Your task to perform on an android device: turn on notifications settings in the gmail app Image 0: 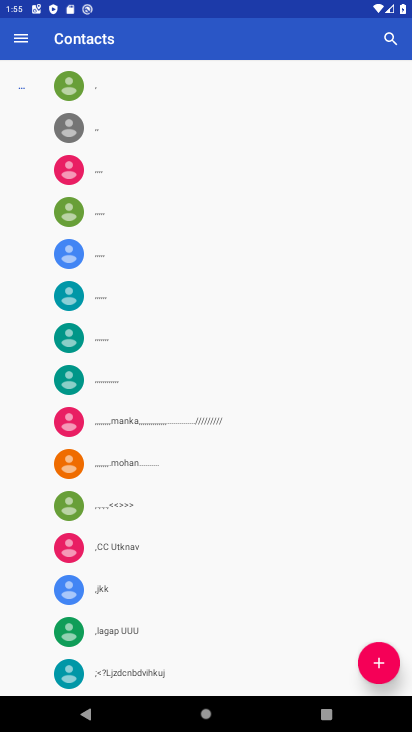
Step 0: press home button
Your task to perform on an android device: turn on notifications settings in the gmail app Image 1: 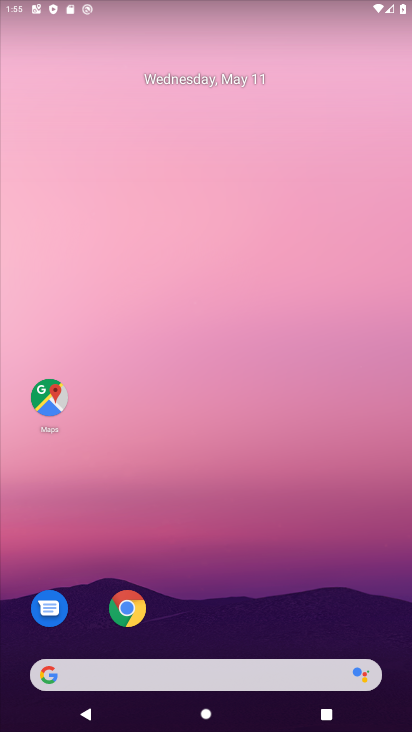
Step 1: drag from (293, 526) to (266, 195)
Your task to perform on an android device: turn on notifications settings in the gmail app Image 2: 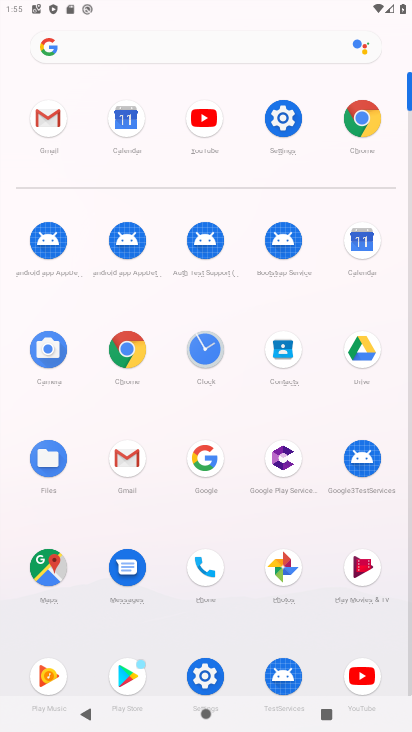
Step 2: click (122, 454)
Your task to perform on an android device: turn on notifications settings in the gmail app Image 3: 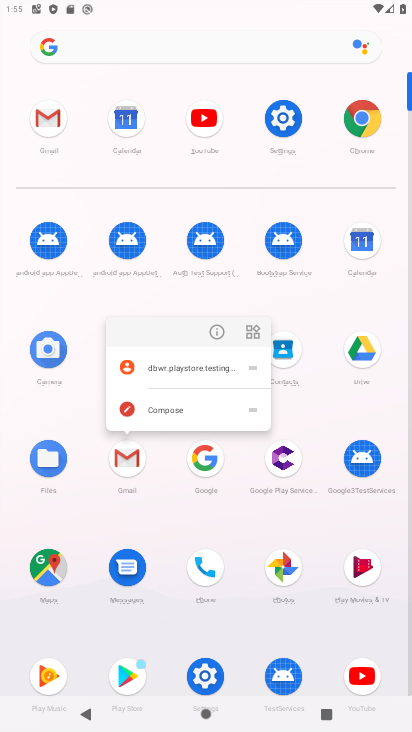
Step 3: click (127, 449)
Your task to perform on an android device: turn on notifications settings in the gmail app Image 4: 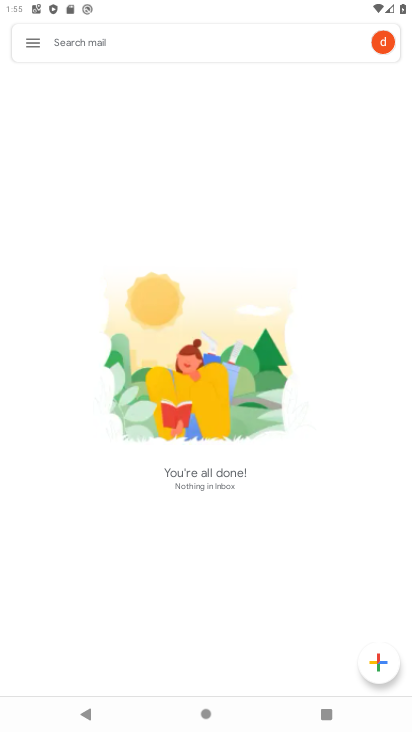
Step 4: click (37, 40)
Your task to perform on an android device: turn on notifications settings in the gmail app Image 5: 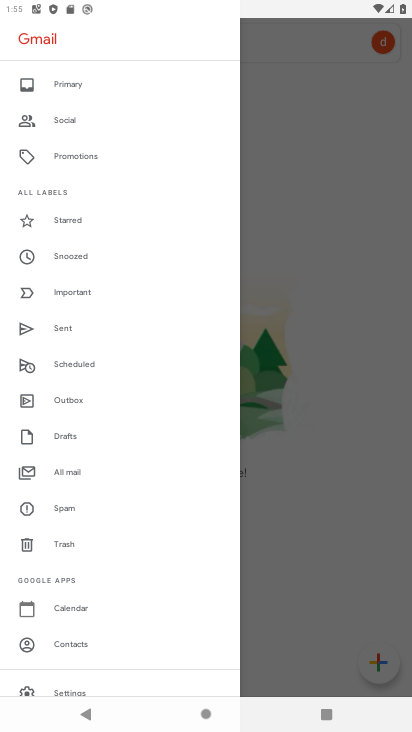
Step 5: click (113, 685)
Your task to perform on an android device: turn on notifications settings in the gmail app Image 6: 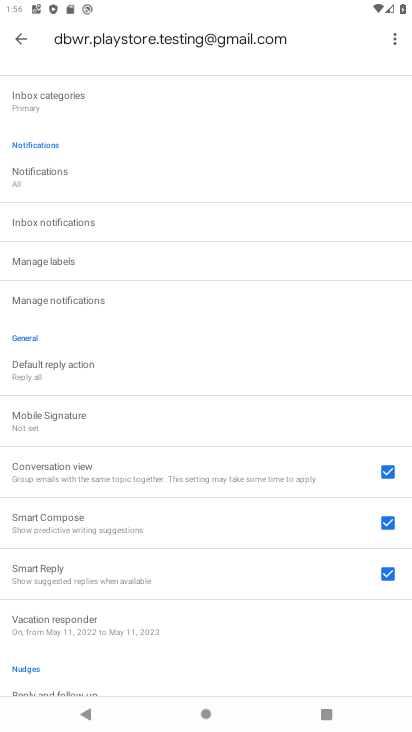
Step 6: drag from (259, 658) to (262, 227)
Your task to perform on an android device: turn on notifications settings in the gmail app Image 7: 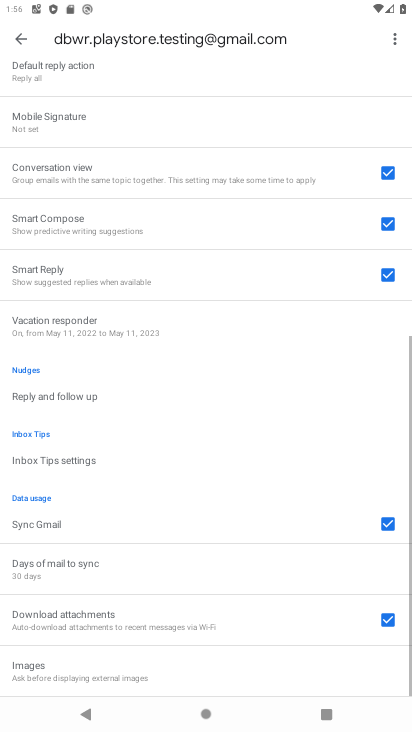
Step 7: drag from (272, 183) to (314, 635)
Your task to perform on an android device: turn on notifications settings in the gmail app Image 8: 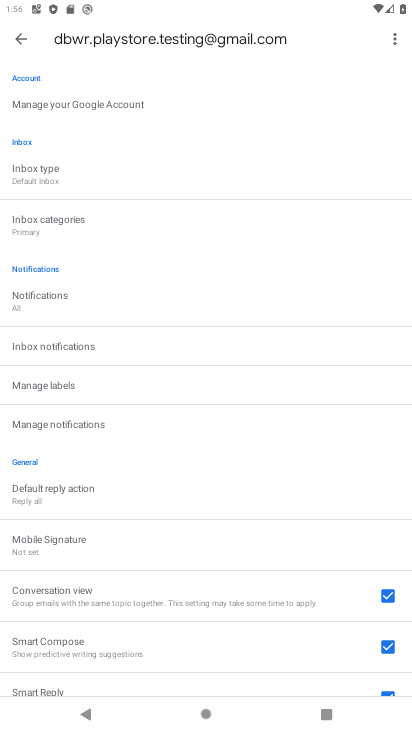
Step 8: click (66, 295)
Your task to perform on an android device: turn on notifications settings in the gmail app Image 9: 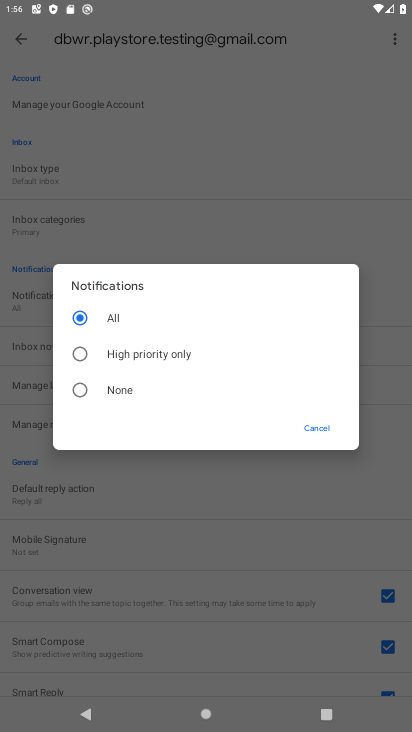
Step 9: click (144, 327)
Your task to perform on an android device: turn on notifications settings in the gmail app Image 10: 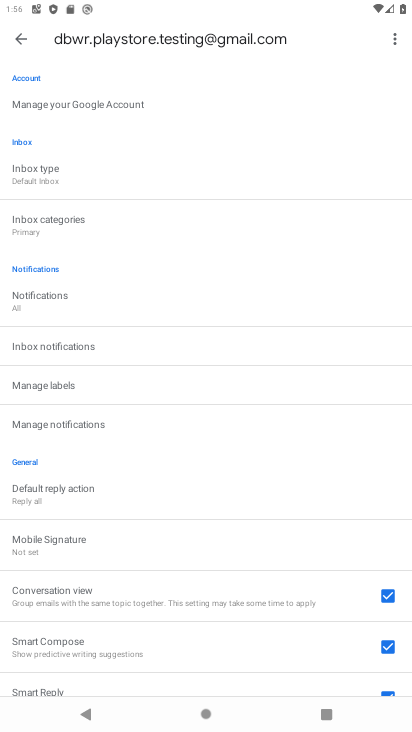
Step 10: task complete